Your task to perform on an android device: turn notification dots on Image 0: 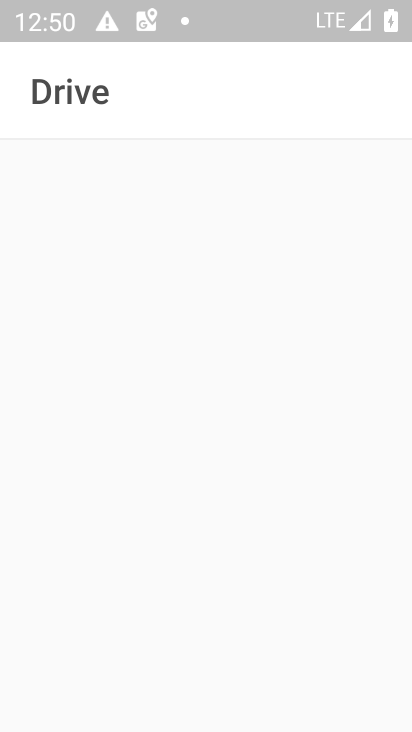
Step 0: press home button
Your task to perform on an android device: turn notification dots on Image 1: 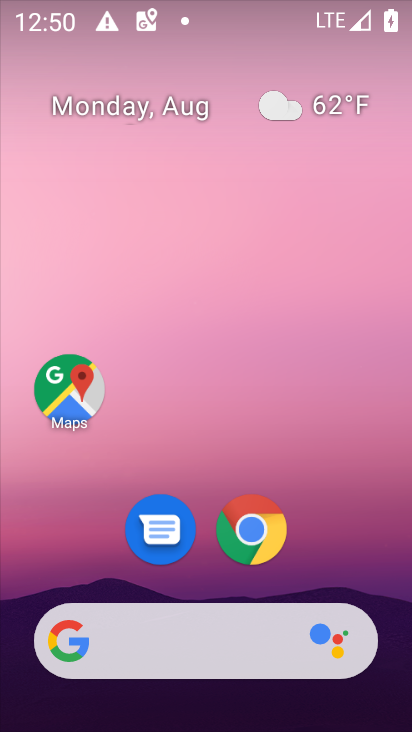
Step 1: drag from (166, 576) to (172, 269)
Your task to perform on an android device: turn notification dots on Image 2: 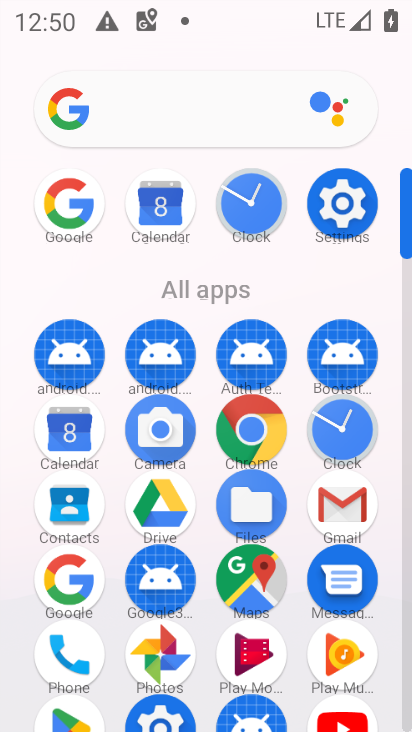
Step 2: click (353, 212)
Your task to perform on an android device: turn notification dots on Image 3: 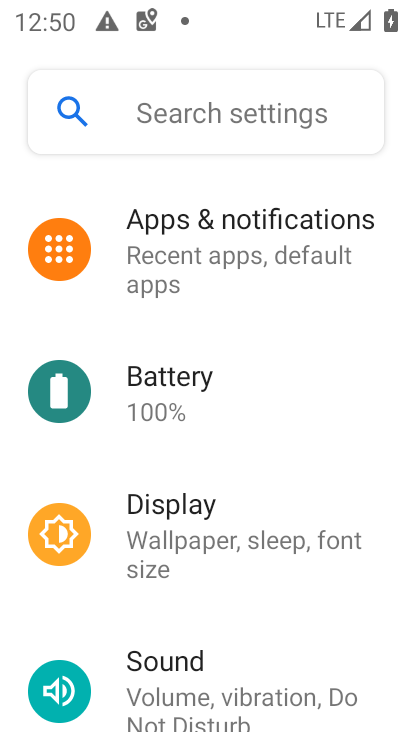
Step 3: click (221, 254)
Your task to perform on an android device: turn notification dots on Image 4: 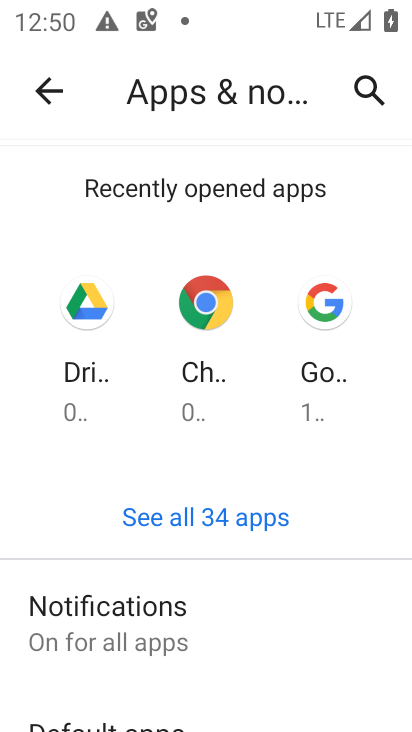
Step 4: click (116, 619)
Your task to perform on an android device: turn notification dots on Image 5: 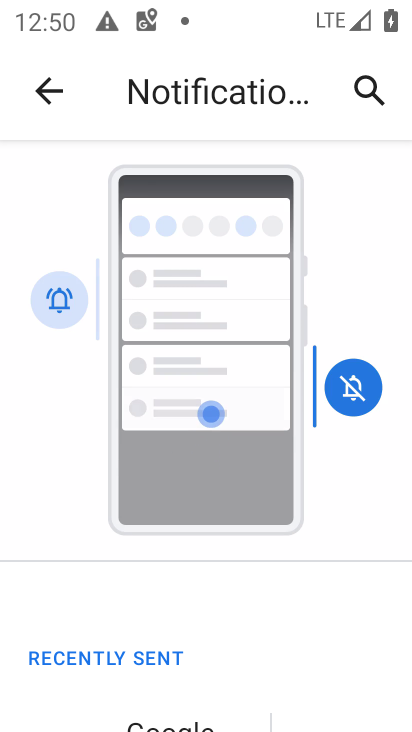
Step 5: drag from (253, 651) to (297, 235)
Your task to perform on an android device: turn notification dots on Image 6: 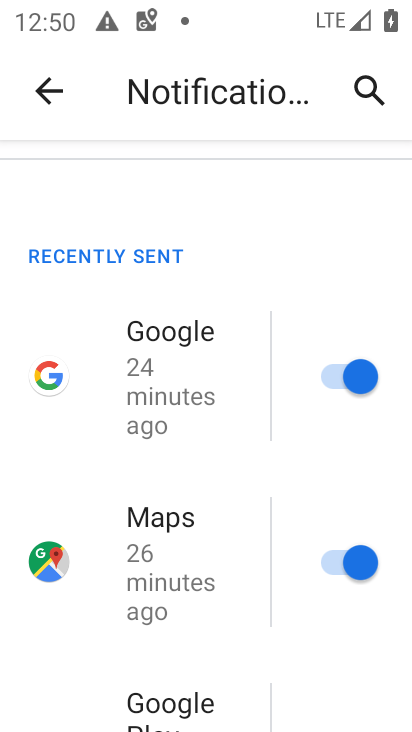
Step 6: drag from (193, 714) to (243, 346)
Your task to perform on an android device: turn notification dots on Image 7: 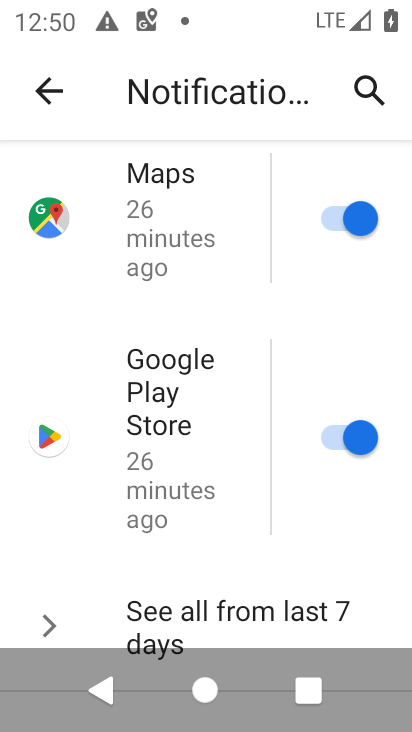
Step 7: drag from (223, 626) to (231, 260)
Your task to perform on an android device: turn notification dots on Image 8: 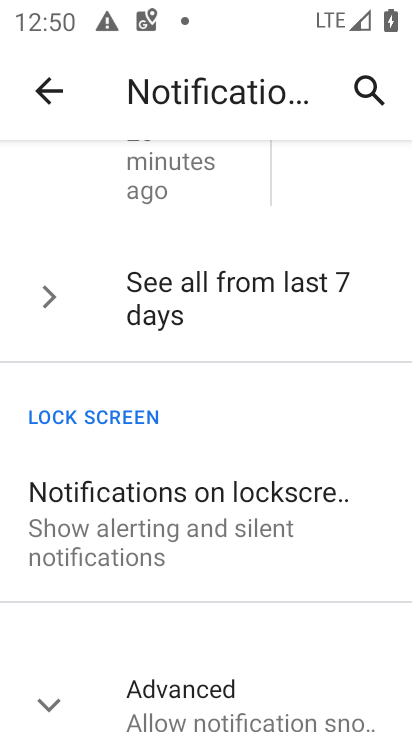
Step 8: drag from (165, 637) to (195, 322)
Your task to perform on an android device: turn notification dots on Image 9: 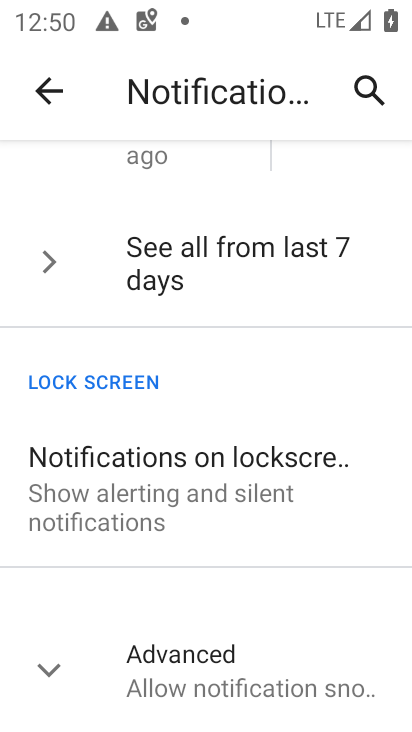
Step 9: click (189, 678)
Your task to perform on an android device: turn notification dots on Image 10: 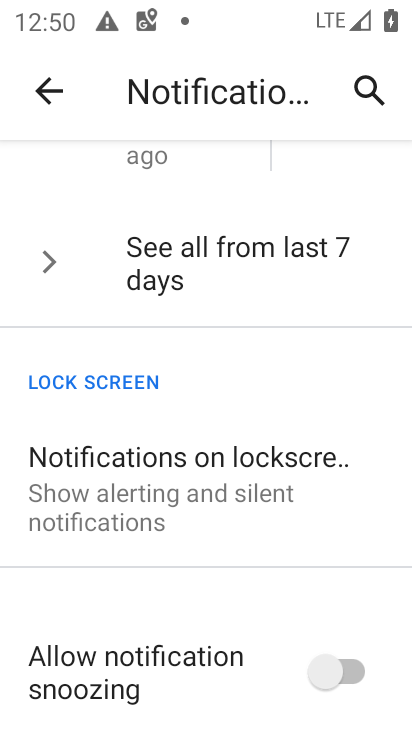
Step 10: drag from (234, 712) to (234, 354)
Your task to perform on an android device: turn notification dots on Image 11: 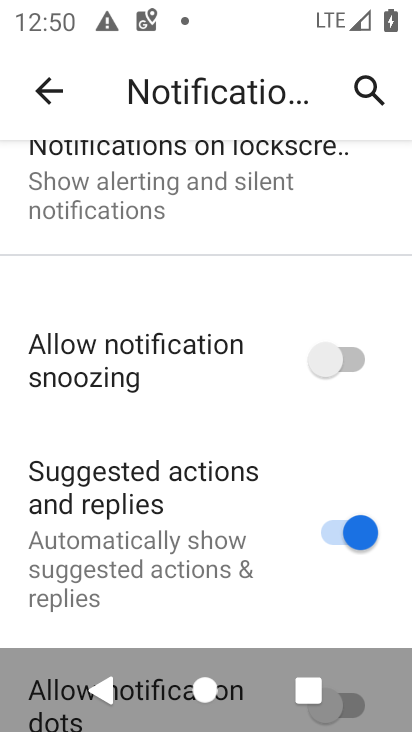
Step 11: drag from (207, 473) to (207, 308)
Your task to perform on an android device: turn notification dots on Image 12: 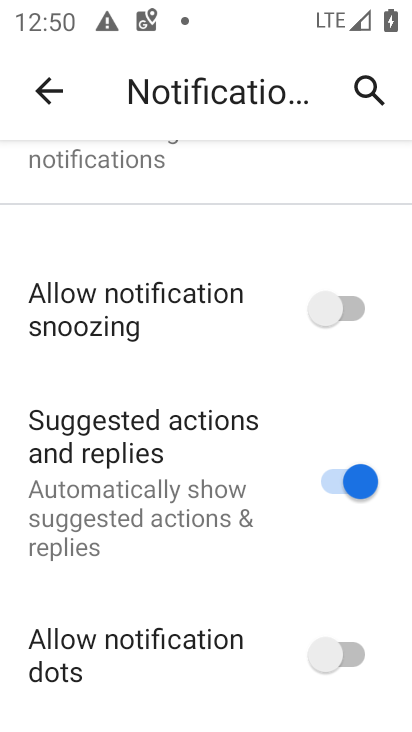
Step 12: click (348, 651)
Your task to perform on an android device: turn notification dots on Image 13: 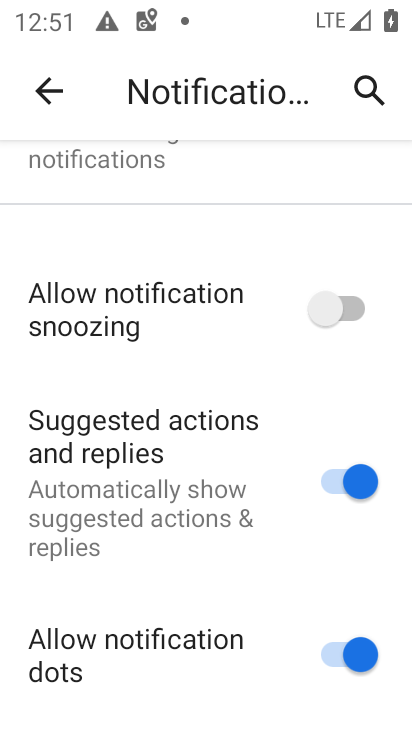
Step 13: task complete